Your task to perform on an android device: Go to Google Image 0: 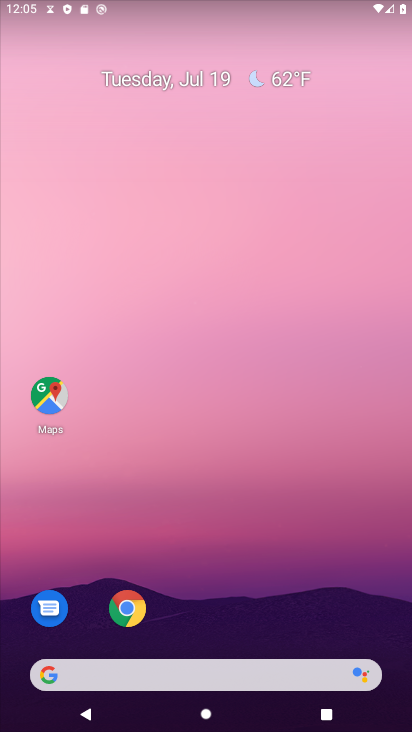
Step 0: drag from (368, 600) to (332, 698)
Your task to perform on an android device: Go to Google Image 1: 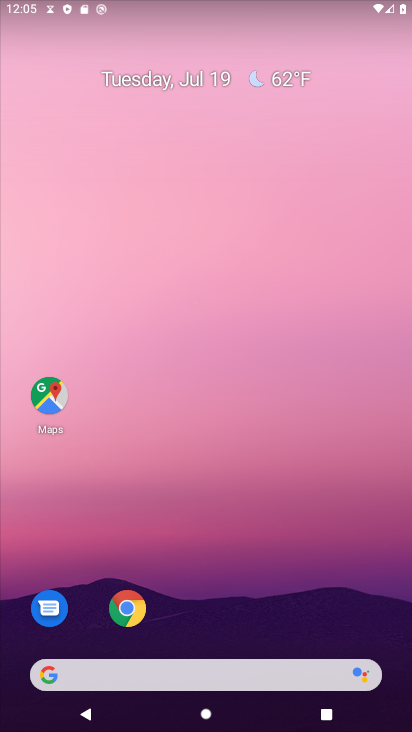
Step 1: click (212, 521)
Your task to perform on an android device: Go to Google Image 2: 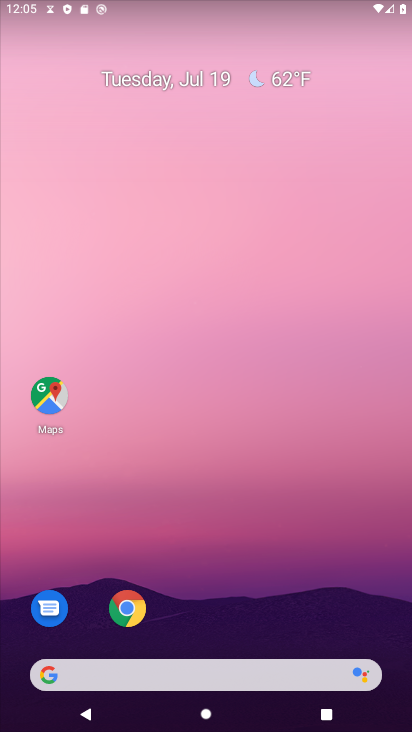
Step 2: drag from (251, 614) to (224, 84)
Your task to perform on an android device: Go to Google Image 3: 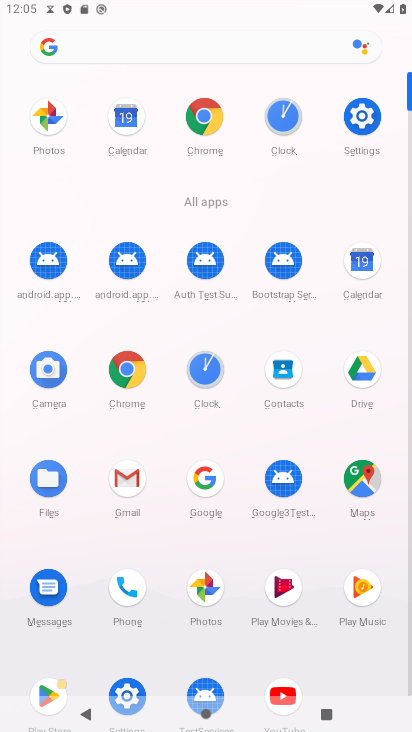
Step 3: click (207, 474)
Your task to perform on an android device: Go to Google Image 4: 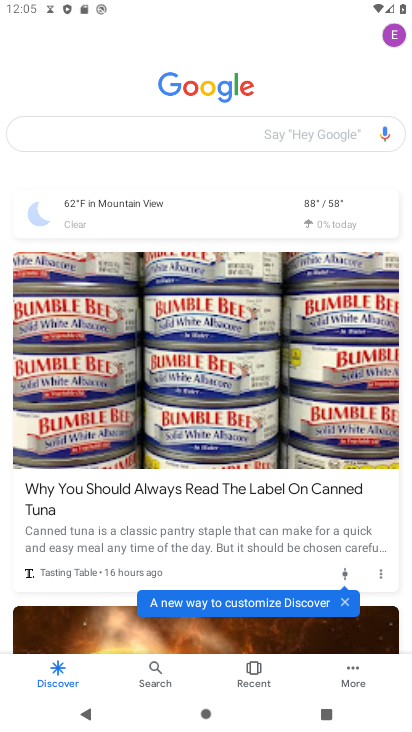
Step 4: task complete